Your task to perform on an android device: Go to sound settings Image 0: 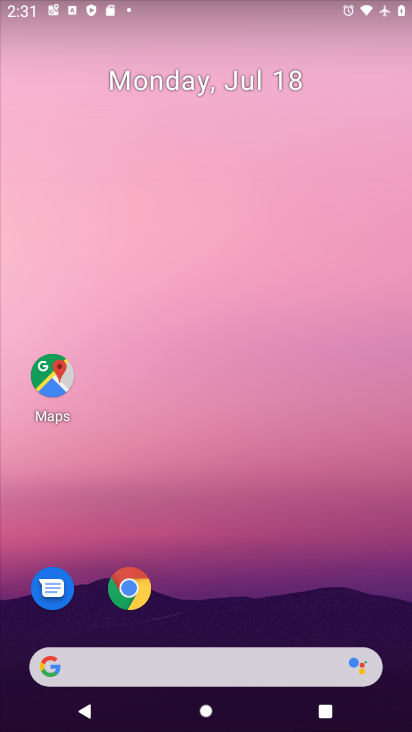
Step 0: drag from (257, 703) to (297, 134)
Your task to perform on an android device: Go to sound settings Image 1: 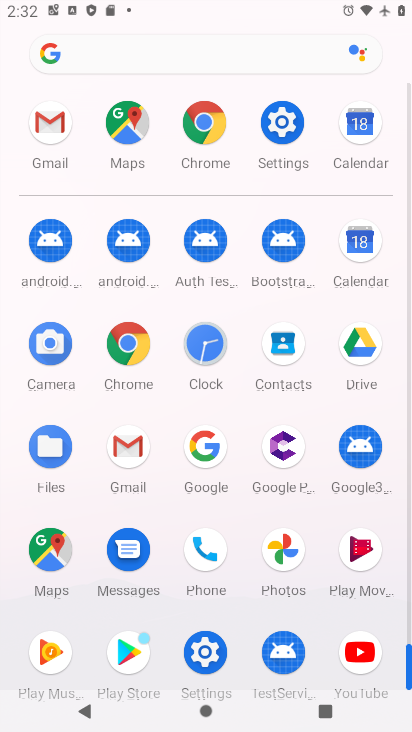
Step 1: click (282, 135)
Your task to perform on an android device: Go to sound settings Image 2: 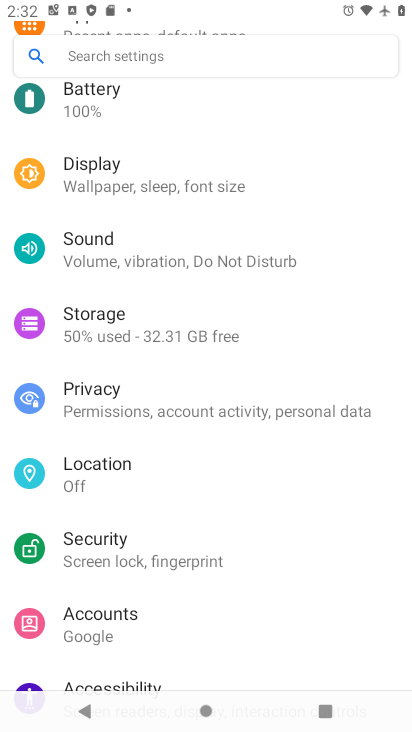
Step 2: click (129, 255)
Your task to perform on an android device: Go to sound settings Image 3: 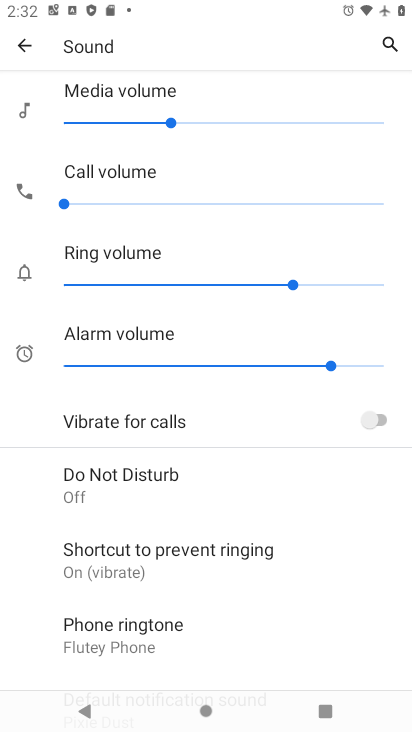
Step 3: task complete